Your task to perform on an android device: Open Google Chrome and click the shortcut for Amazon.com Image 0: 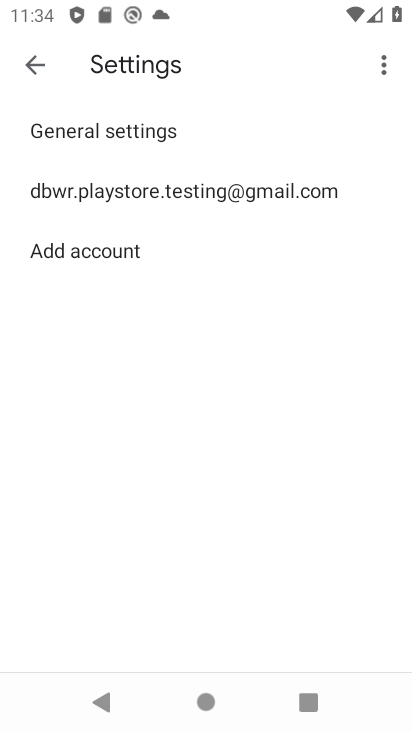
Step 0: press home button
Your task to perform on an android device: Open Google Chrome and click the shortcut for Amazon.com Image 1: 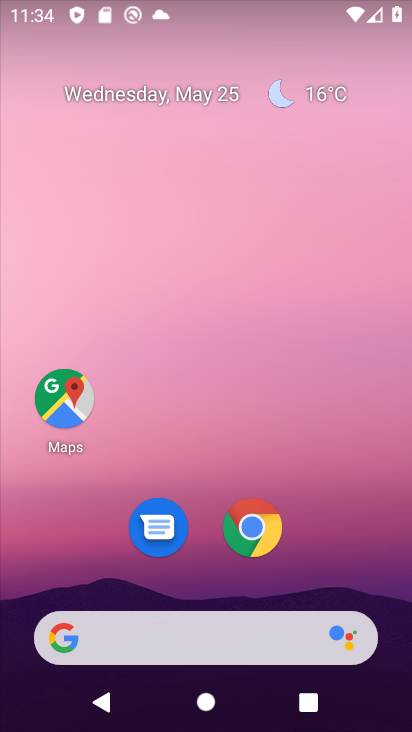
Step 1: click (253, 533)
Your task to perform on an android device: Open Google Chrome and click the shortcut for Amazon.com Image 2: 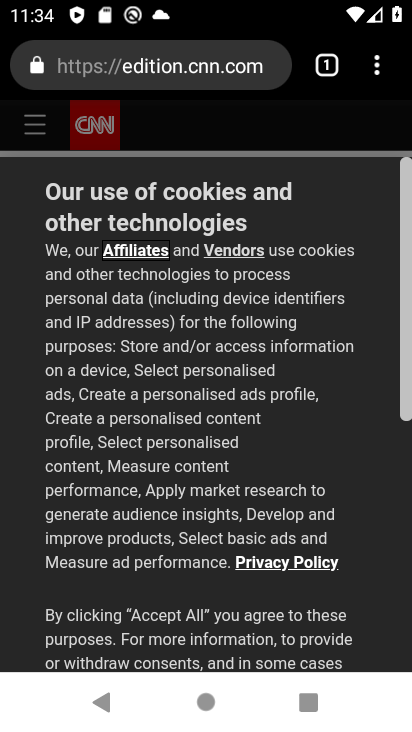
Step 2: drag from (370, 66) to (168, 127)
Your task to perform on an android device: Open Google Chrome and click the shortcut for Amazon.com Image 3: 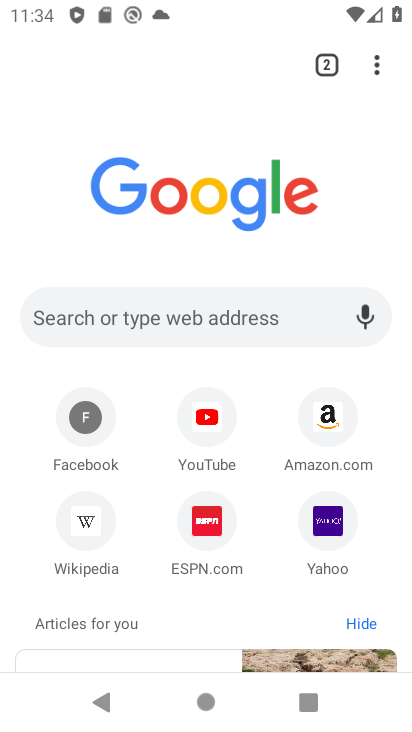
Step 3: click (314, 430)
Your task to perform on an android device: Open Google Chrome and click the shortcut for Amazon.com Image 4: 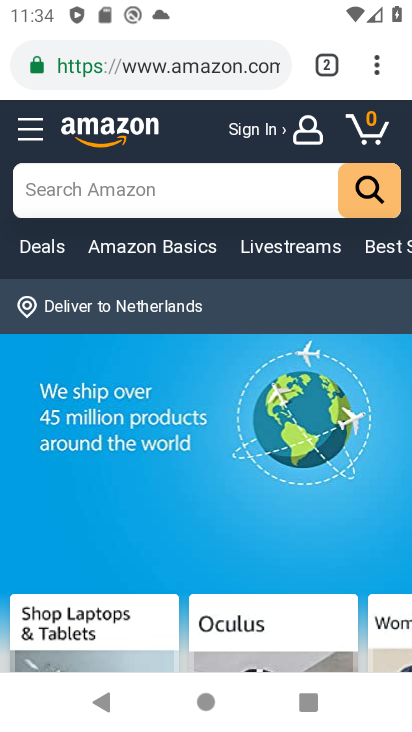
Step 4: task complete